Your task to perform on an android device: turn pop-ups off in chrome Image 0: 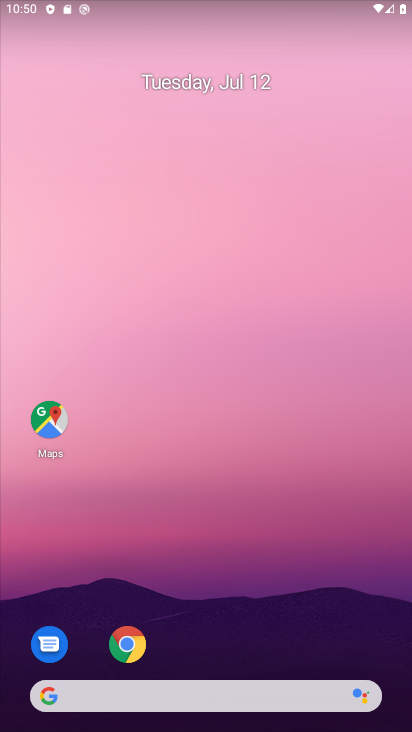
Step 0: click (124, 650)
Your task to perform on an android device: turn pop-ups off in chrome Image 1: 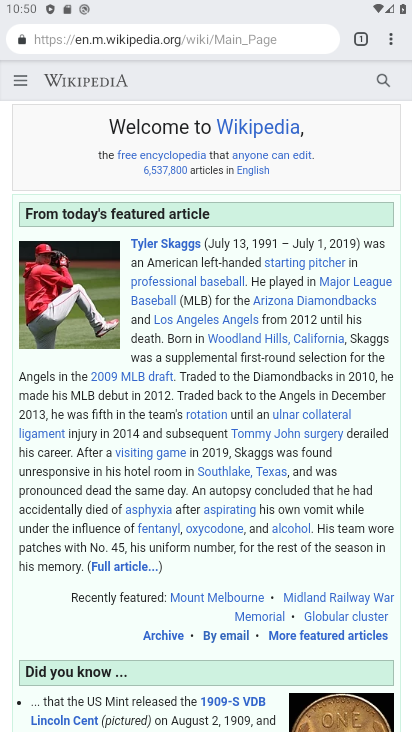
Step 1: click (390, 41)
Your task to perform on an android device: turn pop-ups off in chrome Image 2: 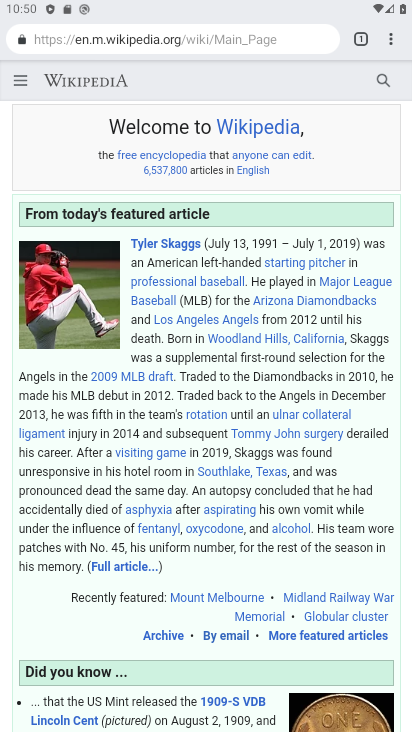
Step 2: click (390, 41)
Your task to perform on an android device: turn pop-ups off in chrome Image 3: 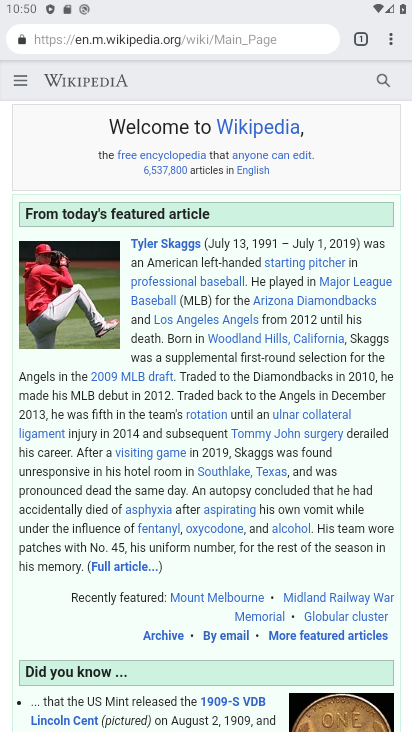
Step 3: click (390, 41)
Your task to perform on an android device: turn pop-ups off in chrome Image 4: 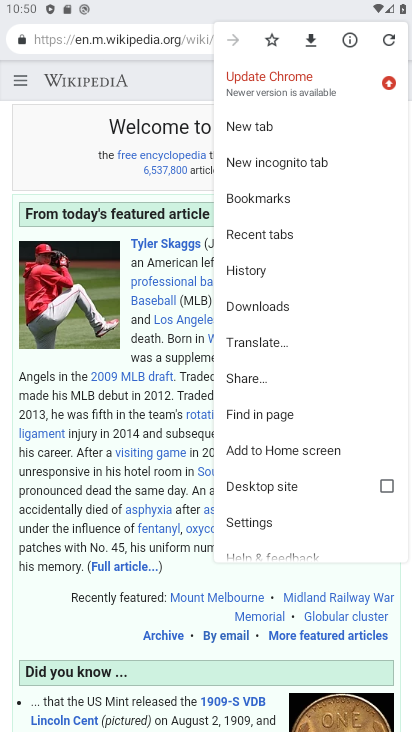
Step 4: click (254, 527)
Your task to perform on an android device: turn pop-ups off in chrome Image 5: 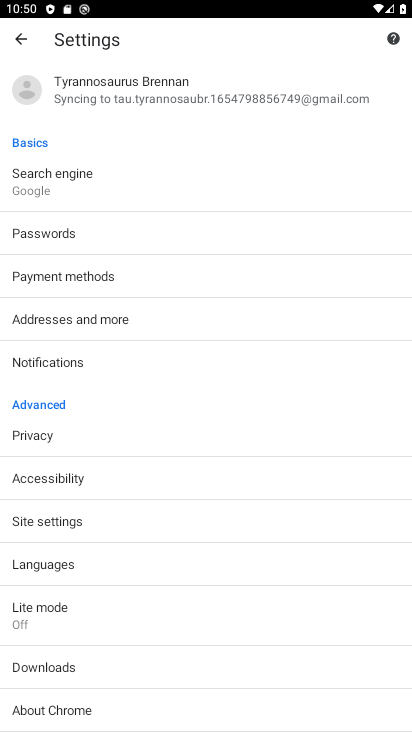
Step 5: click (57, 523)
Your task to perform on an android device: turn pop-ups off in chrome Image 6: 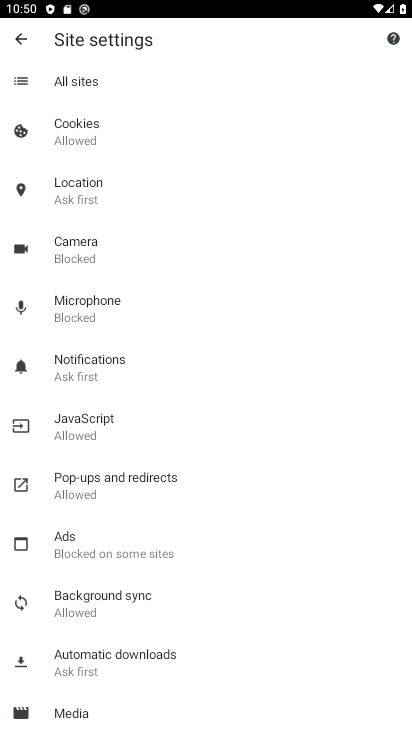
Step 6: click (79, 496)
Your task to perform on an android device: turn pop-ups off in chrome Image 7: 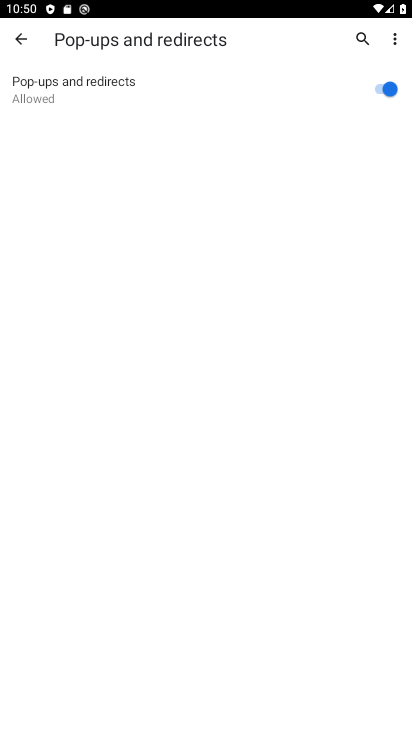
Step 7: click (379, 88)
Your task to perform on an android device: turn pop-ups off in chrome Image 8: 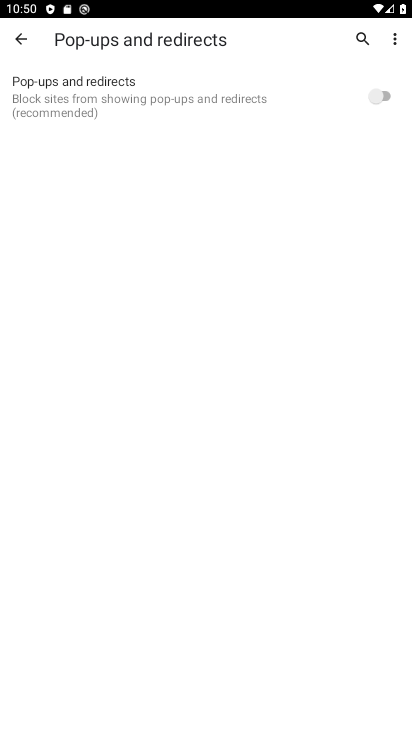
Step 8: task complete